Your task to perform on an android device: toggle show notifications on the lock screen Image 0: 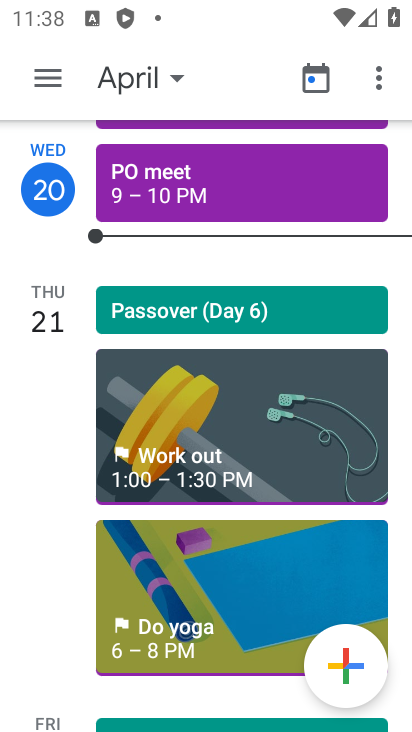
Step 0: press home button
Your task to perform on an android device: toggle show notifications on the lock screen Image 1: 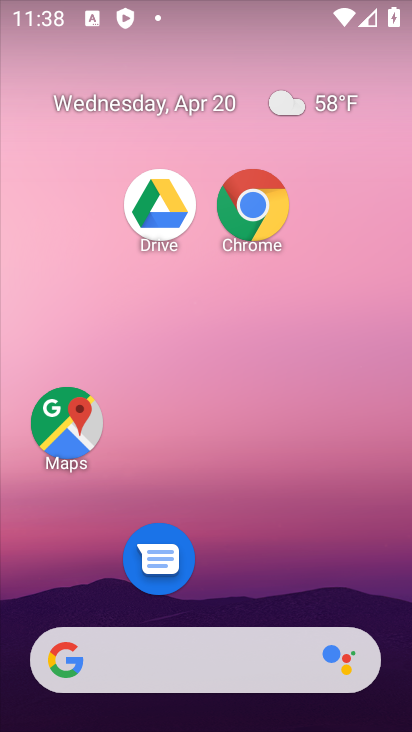
Step 1: drag from (279, 484) to (321, 1)
Your task to perform on an android device: toggle show notifications on the lock screen Image 2: 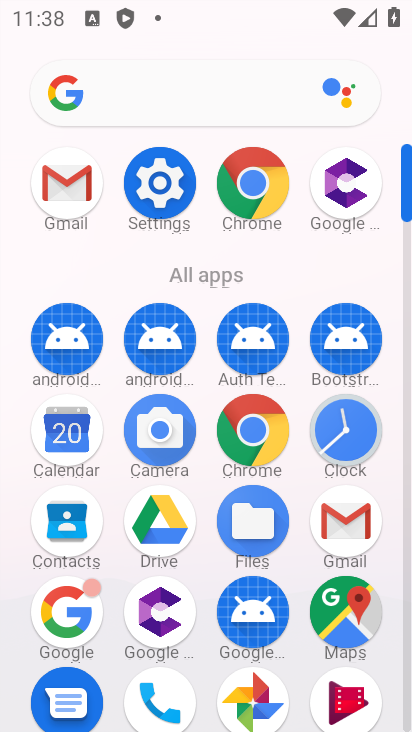
Step 2: drag from (210, 668) to (226, 132)
Your task to perform on an android device: toggle show notifications on the lock screen Image 3: 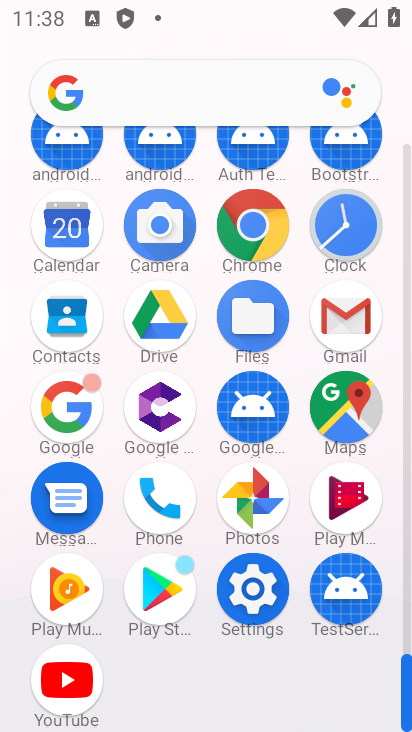
Step 3: click (251, 583)
Your task to perform on an android device: toggle show notifications on the lock screen Image 4: 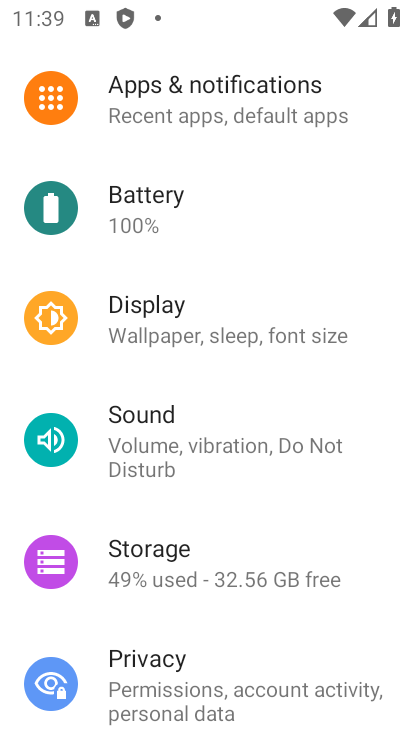
Step 4: click (249, 88)
Your task to perform on an android device: toggle show notifications on the lock screen Image 5: 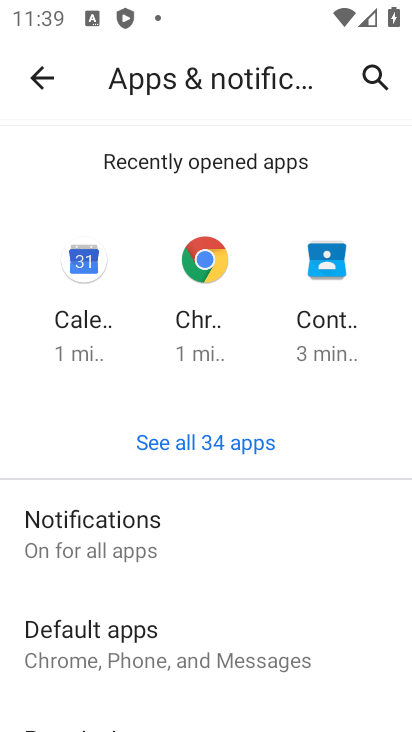
Step 5: click (128, 538)
Your task to perform on an android device: toggle show notifications on the lock screen Image 6: 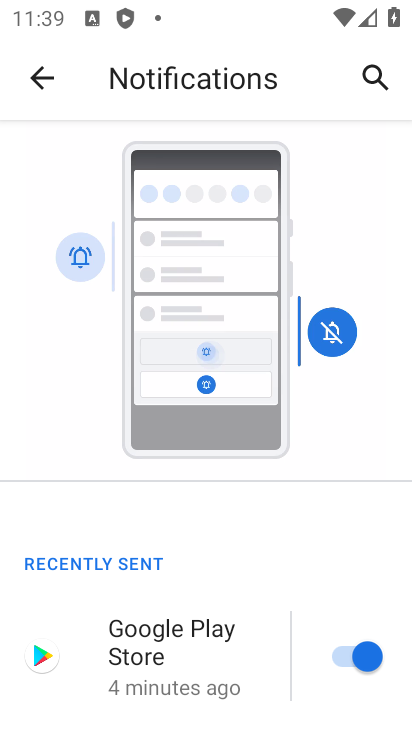
Step 6: drag from (167, 669) to (208, 137)
Your task to perform on an android device: toggle show notifications on the lock screen Image 7: 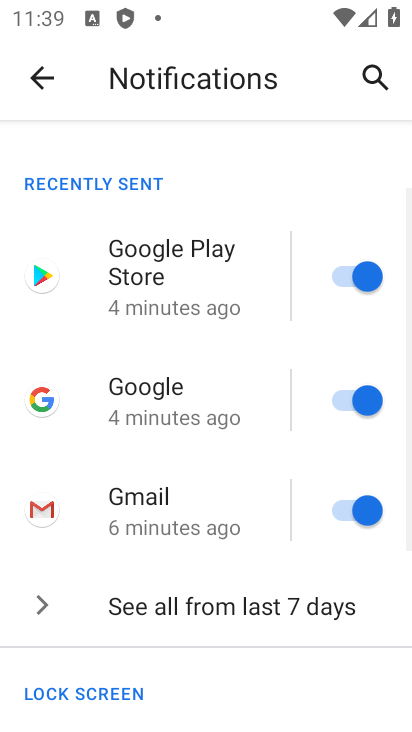
Step 7: drag from (246, 684) to (274, 211)
Your task to perform on an android device: toggle show notifications on the lock screen Image 8: 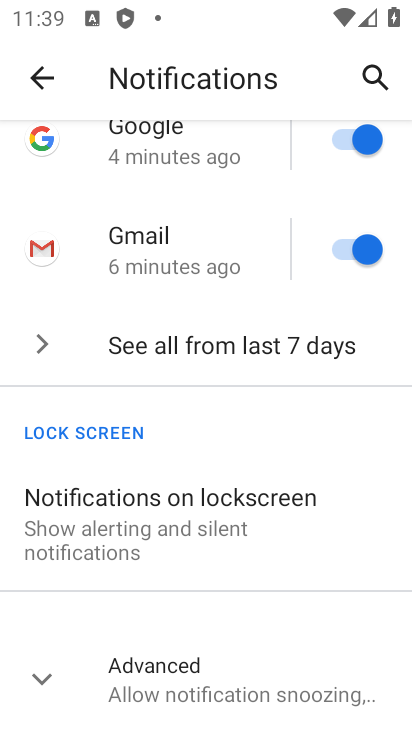
Step 8: click (249, 510)
Your task to perform on an android device: toggle show notifications on the lock screen Image 9: 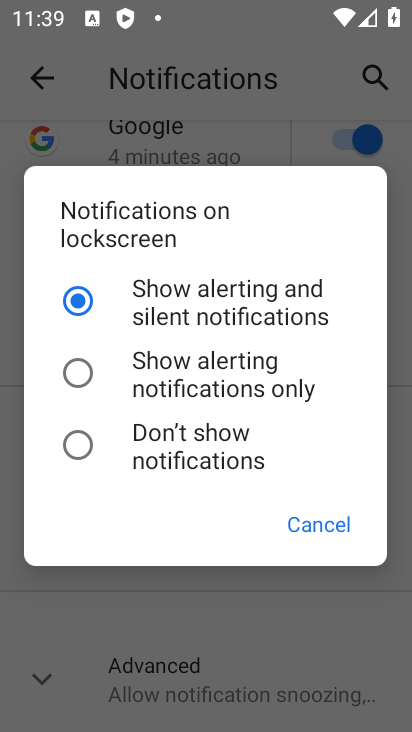
Step 9: click (229, 370)
Your task to perform on an android device: toggle show notifications on the lock screen Image 10: 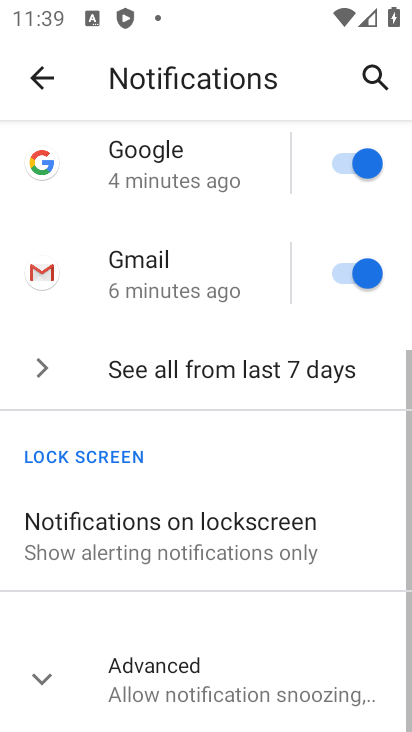
Step 10: task complete